Your task to perform on an android device: Open the stopwatch Image 0: 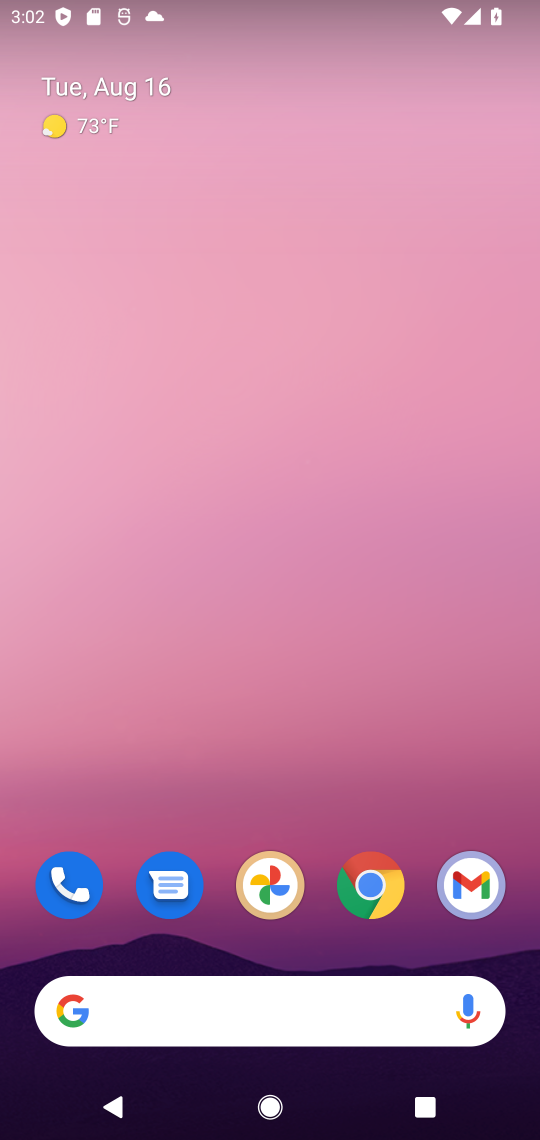
Step 0: drag from (307, 993) to (307, 339)
Your task to perform on an android device: Open the stopwatch Image 1: 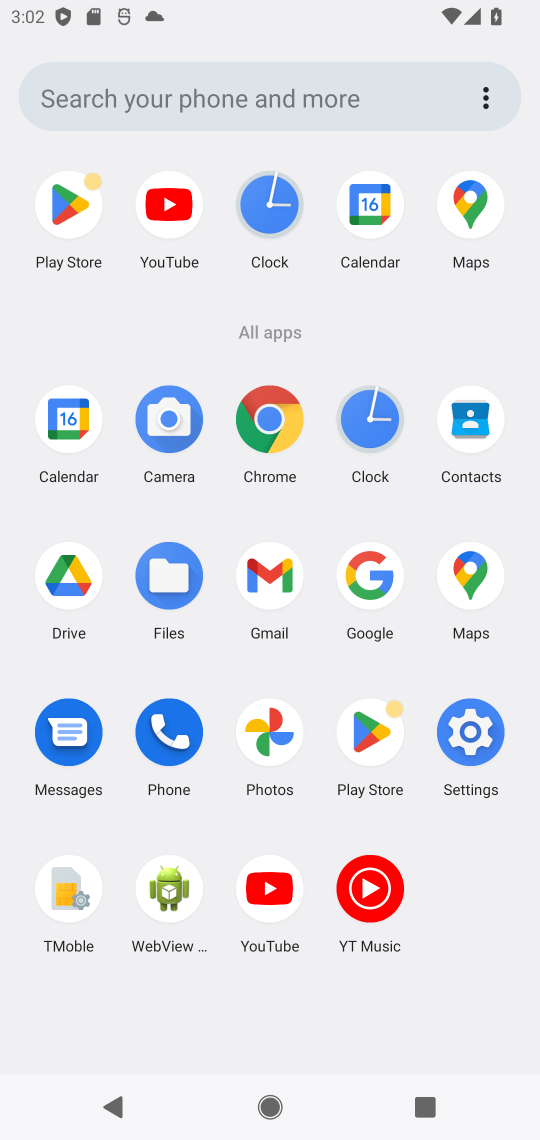
Step 1: click (376, 414)
Your task to perform on an android device: Open the stopwatch Image 2: 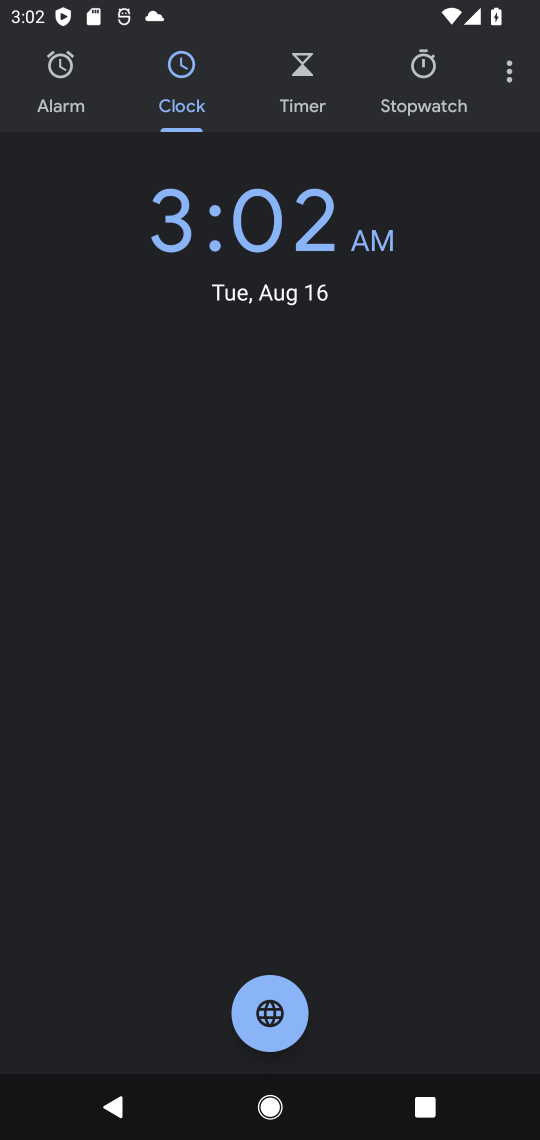
Step 2: click (411, 74)
Your task to perform on an android device: Open the stopwatch Image 3: 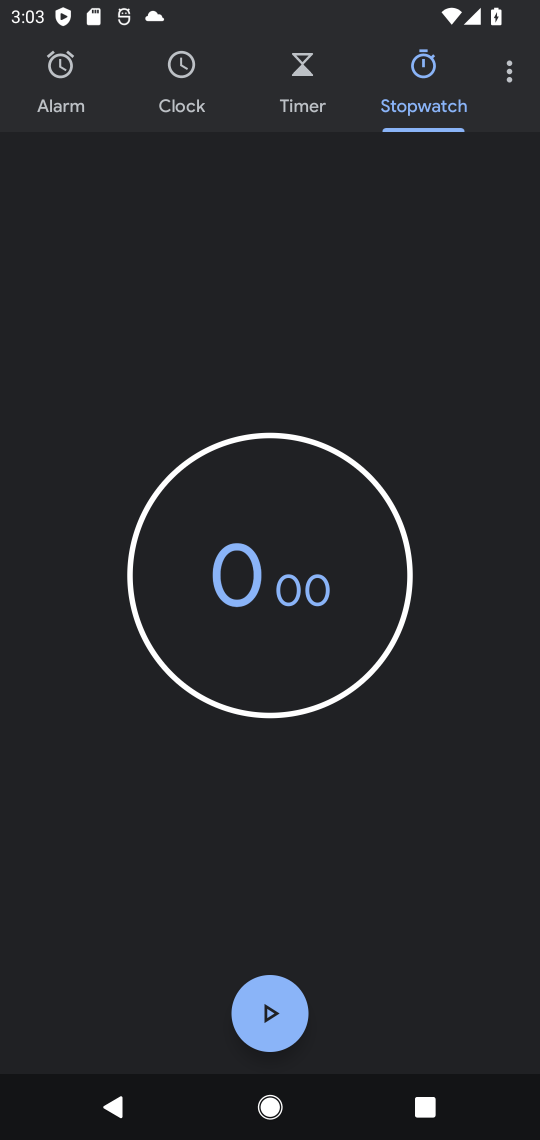
Step 3: click (260, 1028)
Your task to perform on an android device: Open the stopwatch Image 4: 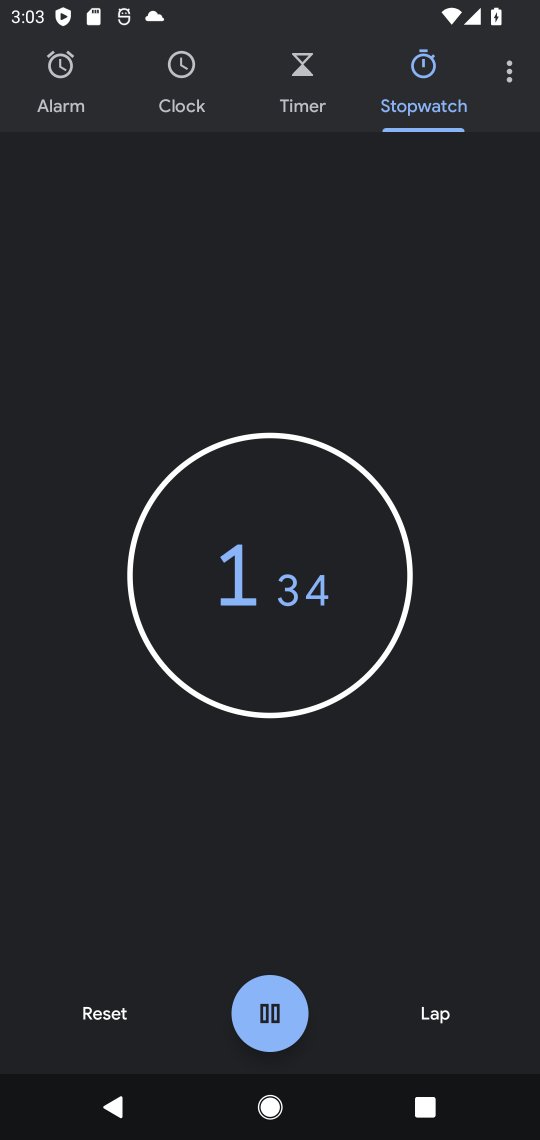
Step 4: click (260, 1028)
Your task to perform on an android device: Open the stopwatch Image 5: 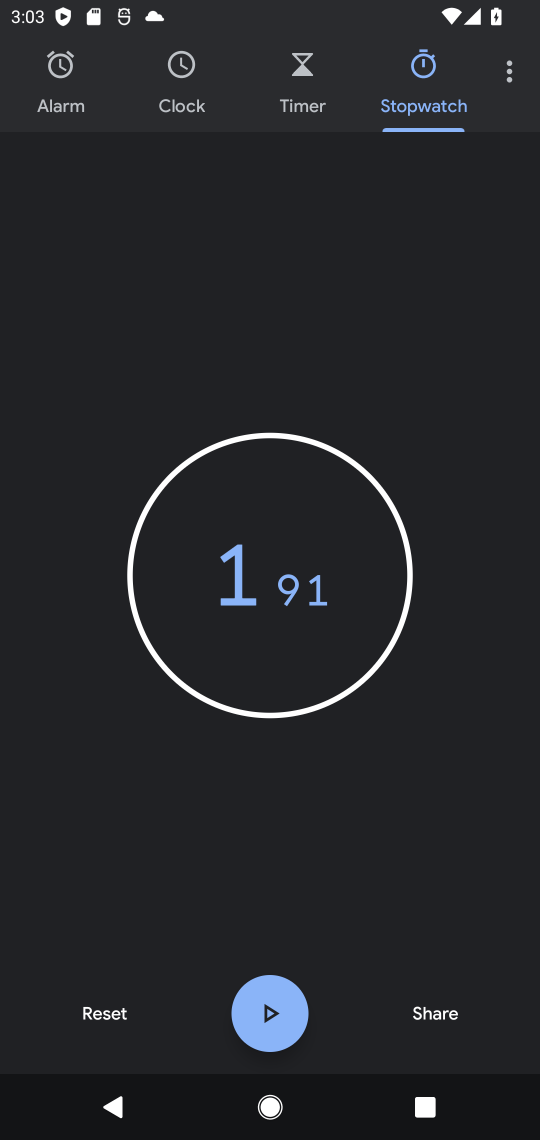
Step 5: task complete